Your task to perform on an android device: check data usage Image 0: 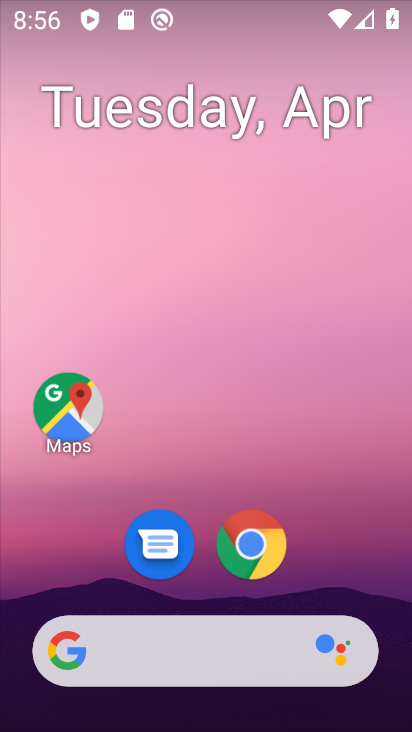
Step 0: drag from (320, 578) to (312, 89)
Your task to perform on an android device: check data usage Image 1: 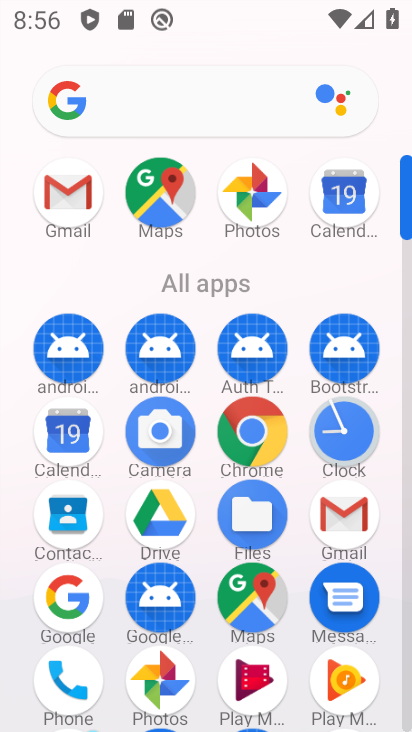
Step 1: drag from (297, 678) to (319, 295)
Your task to perform on an android device: check data usage Image 2: 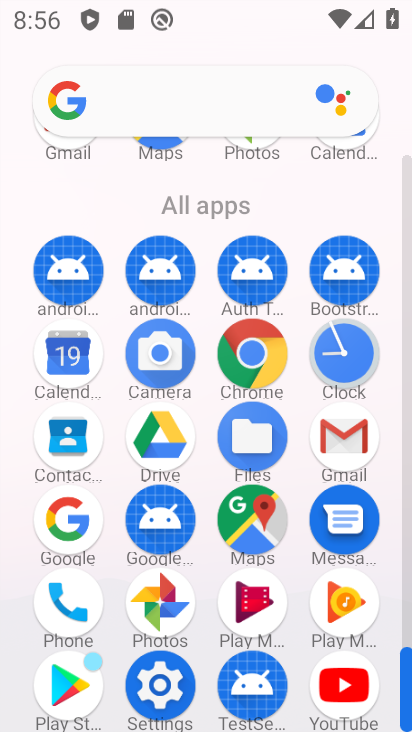
Step 2: click (165, 676)
Your task to perform on an android device: check data usage Image 3: 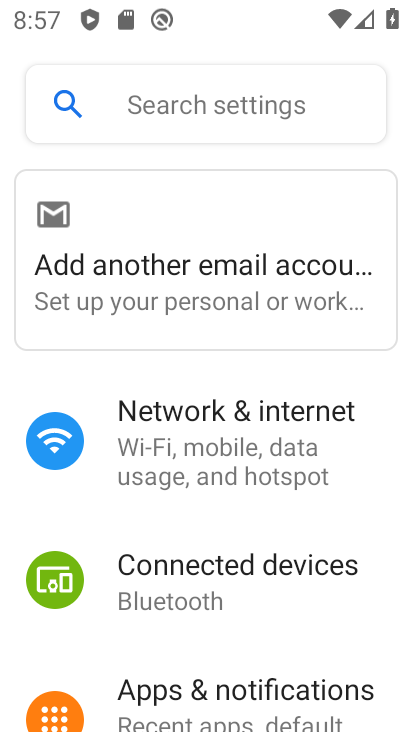
Step 3: click (234, 474)
Your task to perform on an android device: check data usage Image 4: 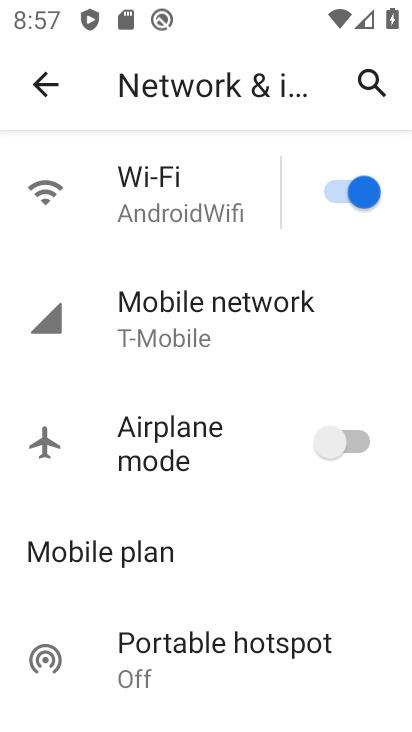
Step 4: click (188, 341)
Your task to perform on an android device: check data usage Image 5: 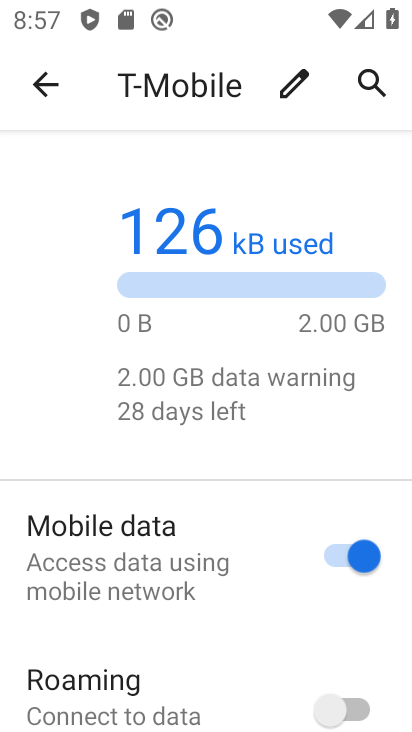
Step 5: drag from (173, 619) to (203, 332)
Your task to perform on an android device: check data usage Image 6: 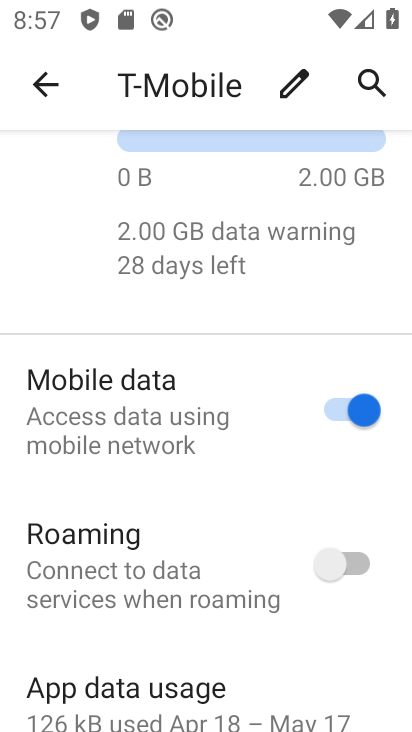
Step 6: click (180, 713)
Your task to perform on an android device: check data usage Image 7: 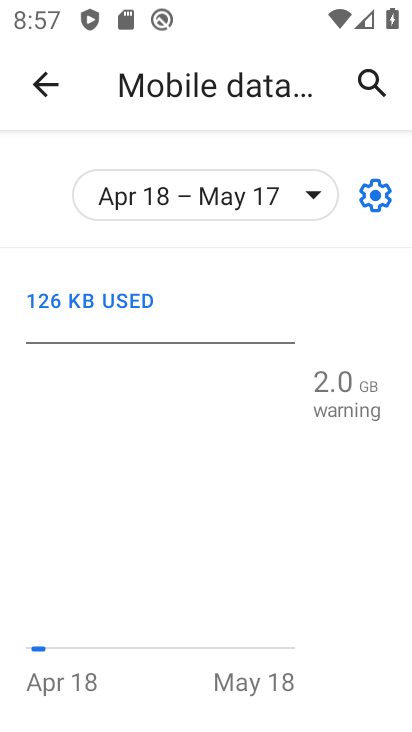
Step 7: task complete